Your task to perform on an android device: Open the stopwatch Image 0: 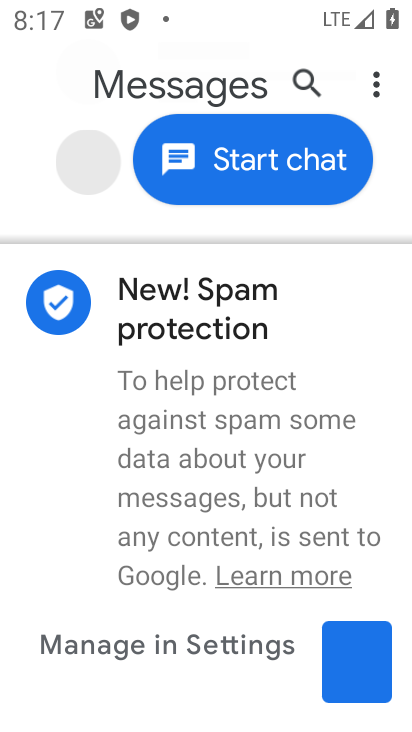
Step 0: press home button
Your task to perform on an android device: Open the stopwatch Image 1: 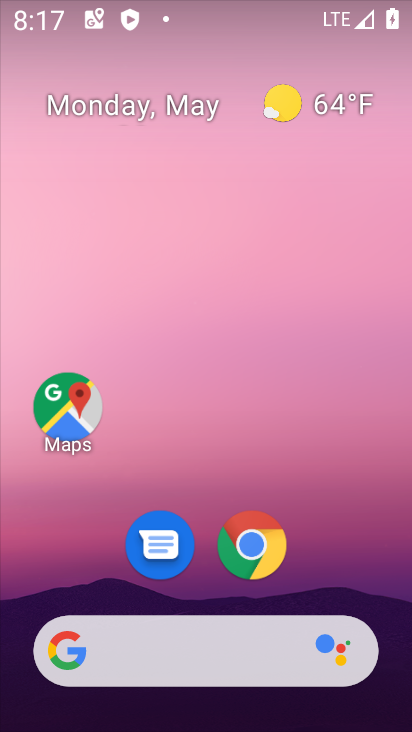
Step 1: drag from (178, 658) to (187, 24)
Your task to perform on an android device: Open the stopwatch Image 2: 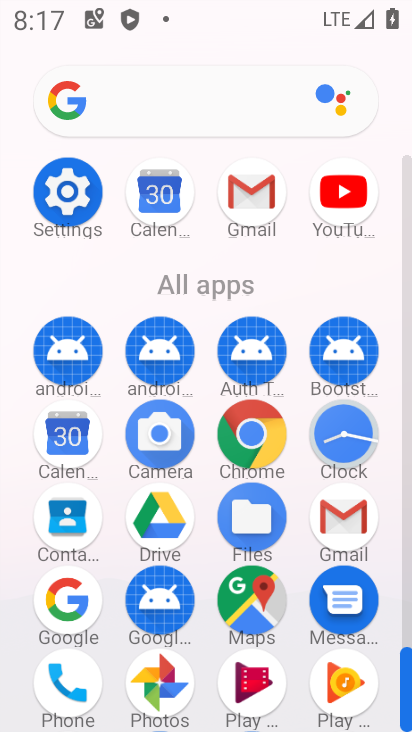
Step 2: click (338, 425)
Your task to perform on an android device: Open the stopwatch Image 3: 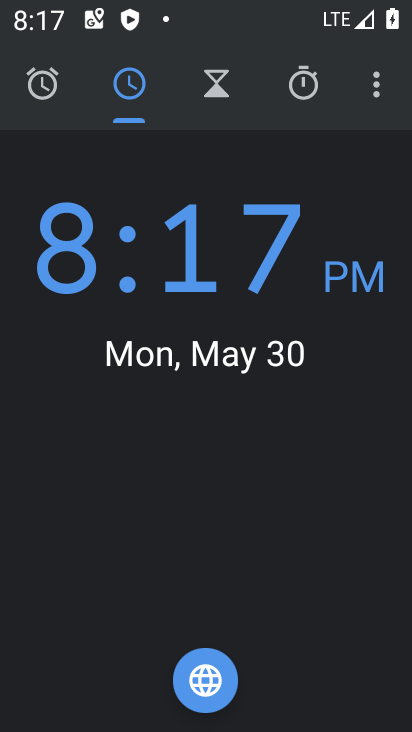
Step 3: click (301, 93)
Your task to perform on an android device: Open the stopwatch Image 4: 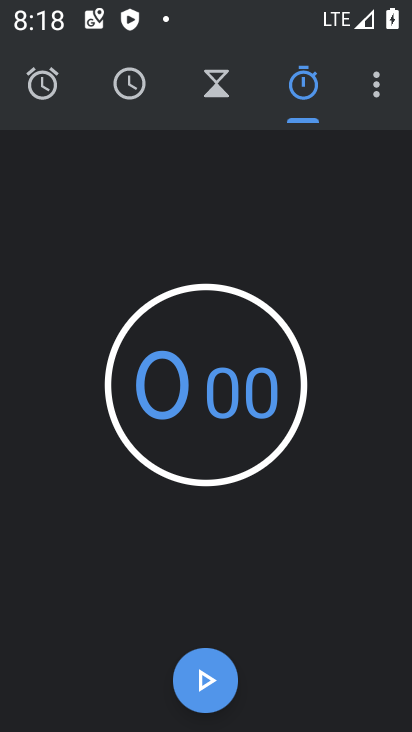
Step 4: task complete